Your task to perform on an android device: uninstall "Google Play Games" Image 0: 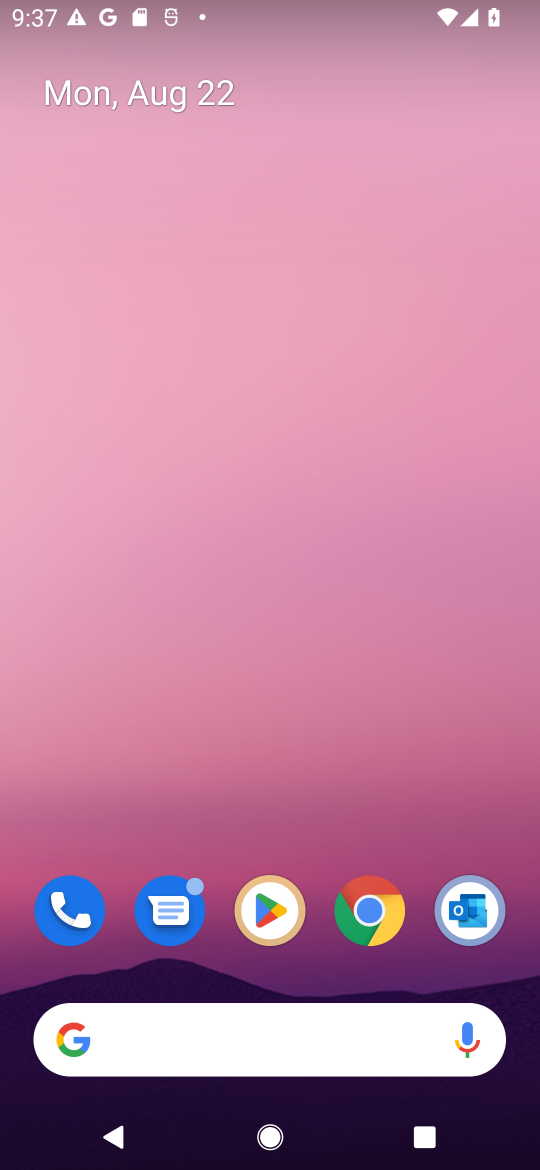
Step 0: press home button
Your task to perform on an android device: uninstall "Google Play Games" Image 1: 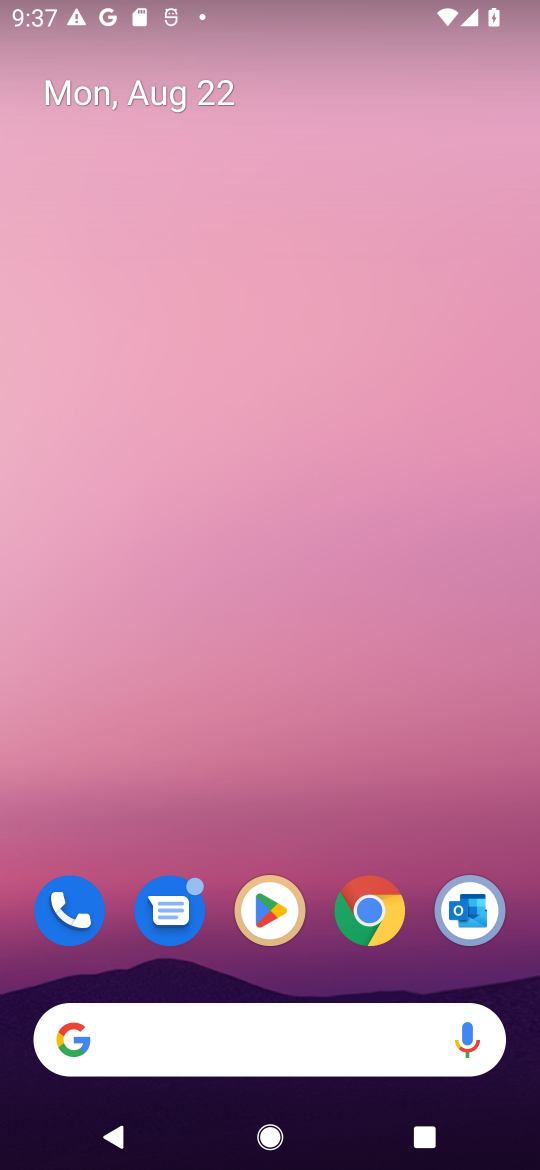
Step 1: click (283, 898)
Your task to perform on an android device: uninstall "Google Play Games" Image 2: 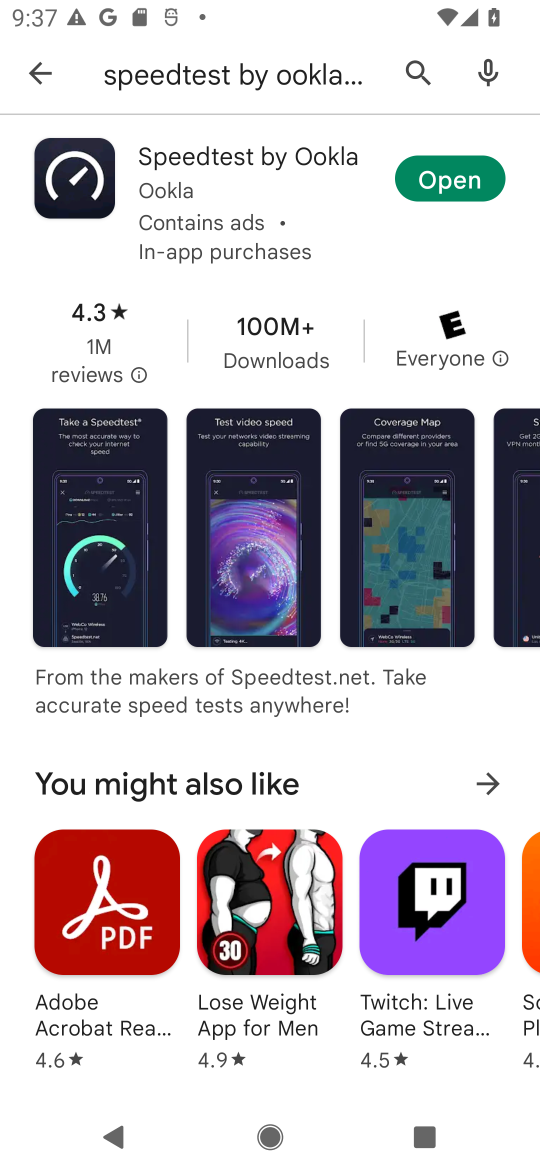
Step 2: click (414, 60)
Your task to perform on an android device: uninstall "Google Play Games" Image 3: 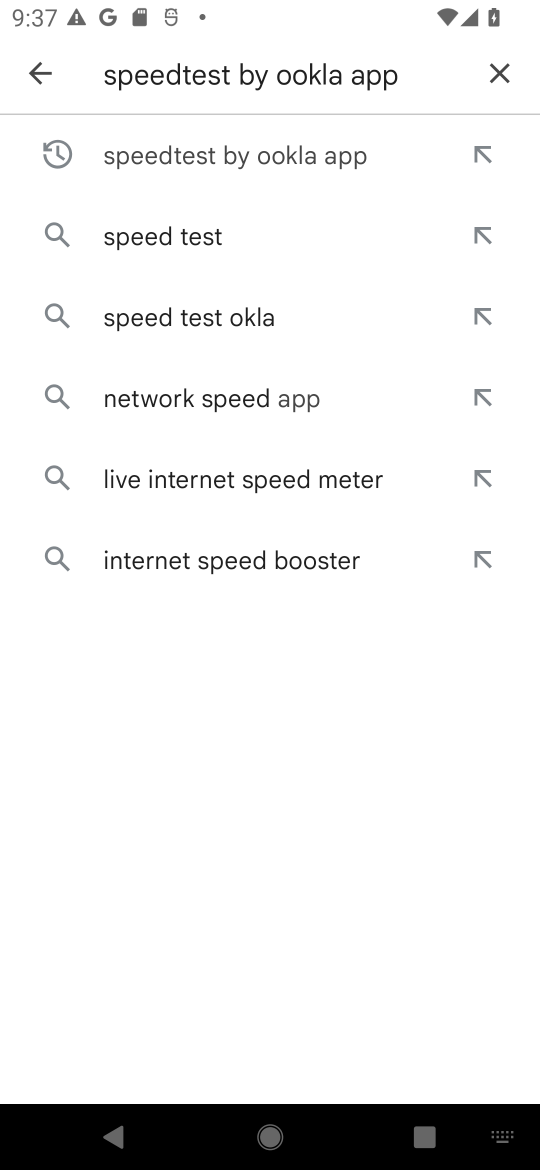
Step 3: click (494, 82)
Your task to perform on an android device: uninstall "Google Play Games" Image 4: 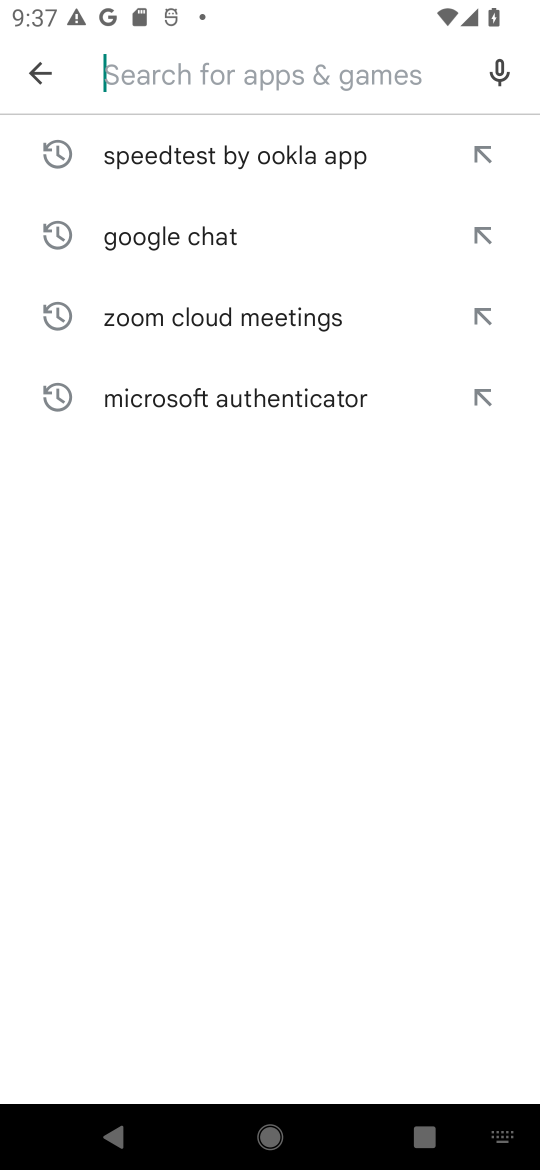
Step 4: type "Google Play Games"
Your task to perform on an android device: uninstall "Google Play Games" Image 5: 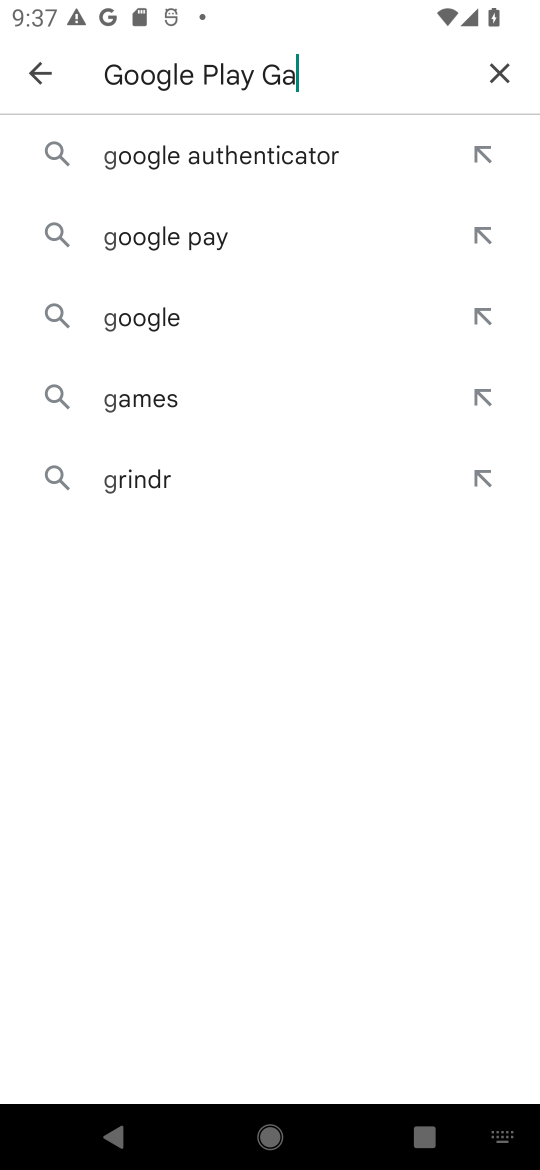
Step 5: type ""
Your task to perform on an android device: uninstall "Google Play Games" Image 6: 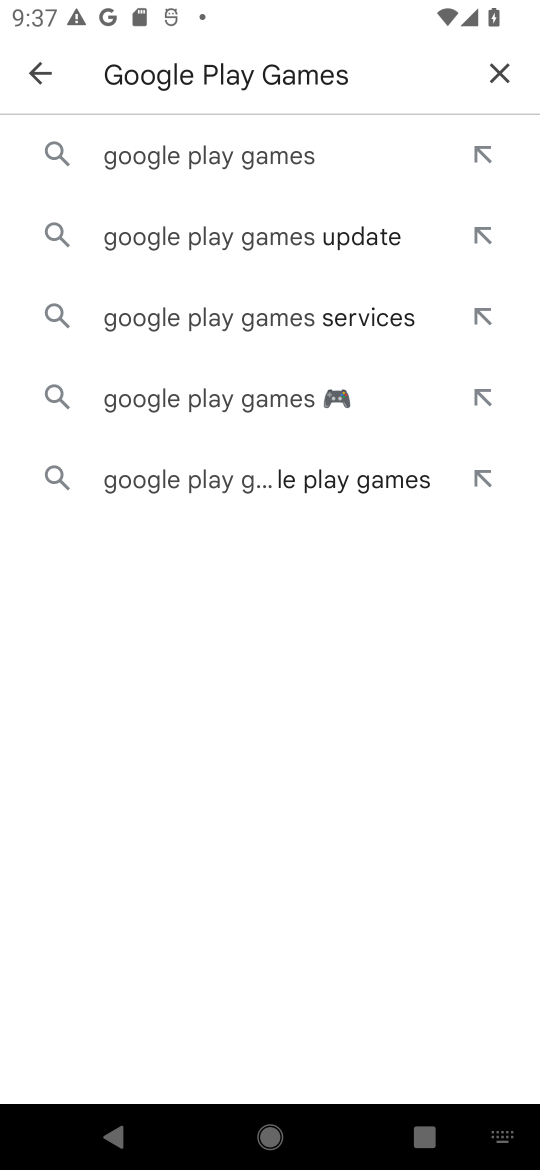
Step 6: click (235, 159)
Your task to perform on an android device: uninstall "Google Play Games" Image 7: 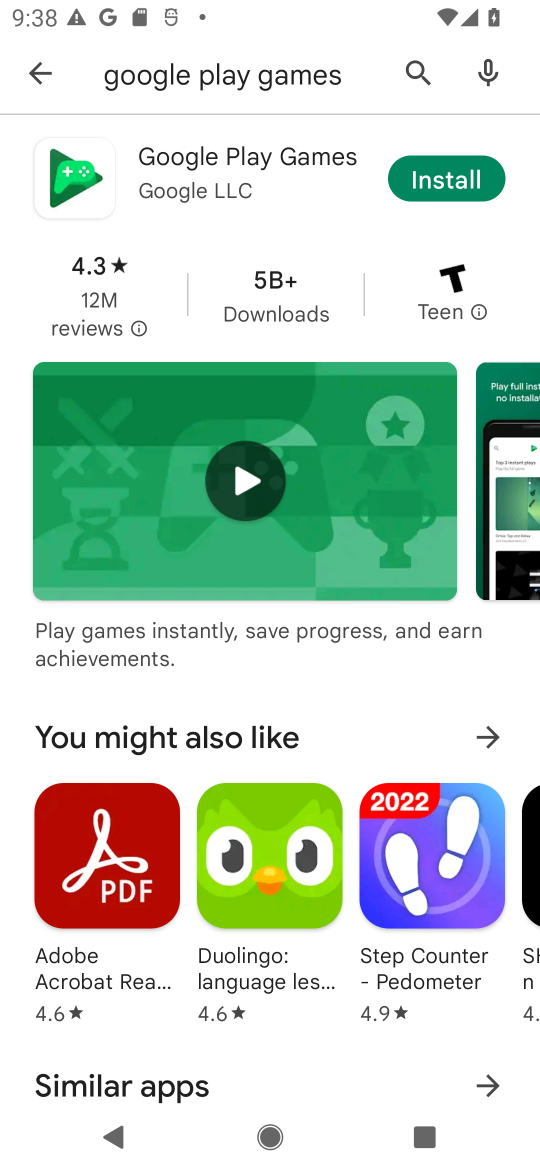
Step 7: task complete